Your task to perform on an android device: Open Chrome and go to the settings page Image 0: 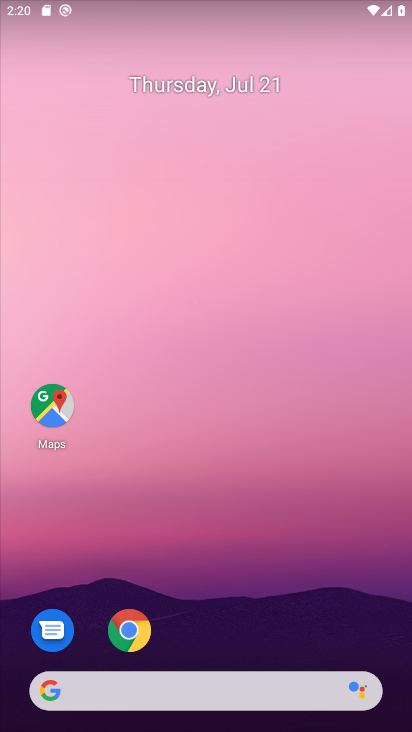
Step 0: click (138, 630)
Your task to perform on an android device: Open Chrome and go to the settings page Image 1: 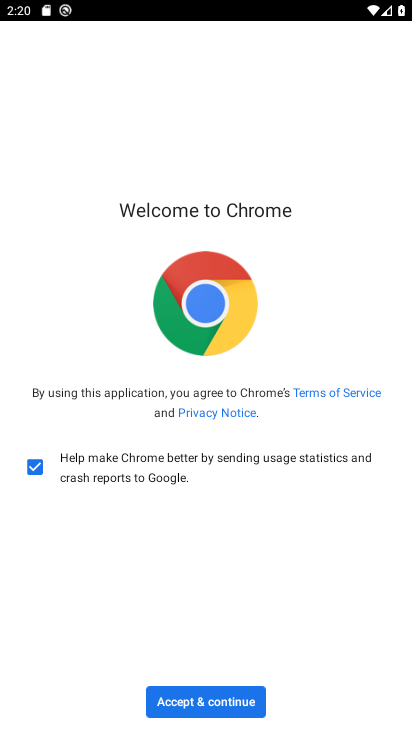
Step 1: click (187, 713)
Your task to perform on an android device: Open Chrome and go to the settings page Image 2: 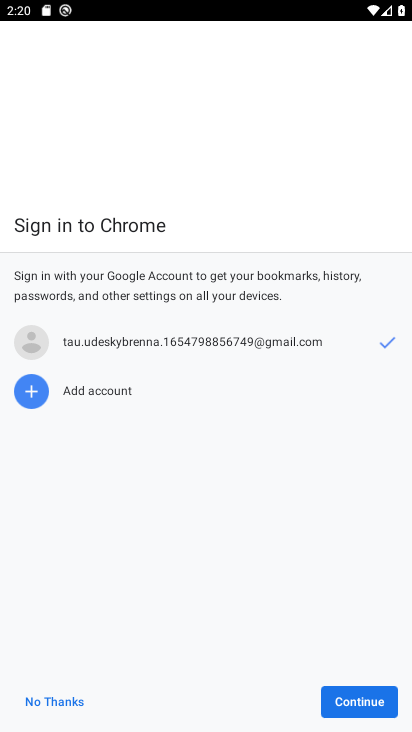
Step 2: click (355, 696)
Your task to perform on an android device: Open Chrome and go to the settings page Image 3: 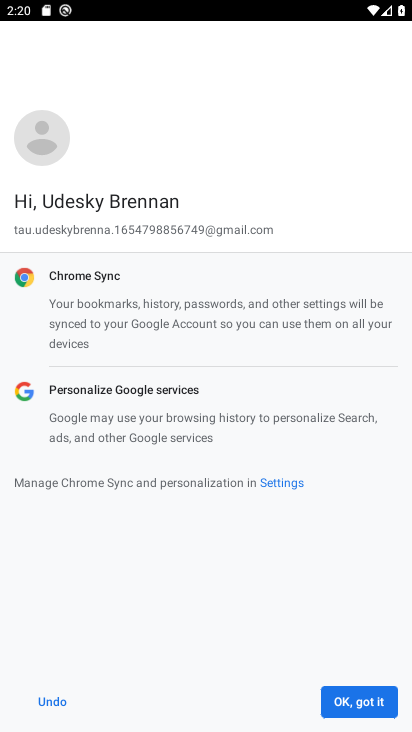
Step 3: click (355, 696)
Your task to perform on an android device: Open Chrome and go to the settings page Image 4: 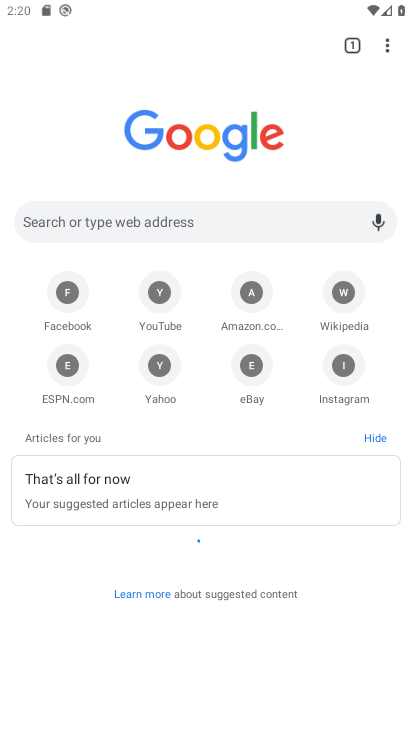
Step 4: click (390, 40)
Your task to perform on an android device: Open Chrome and go to the settings page Image 5: 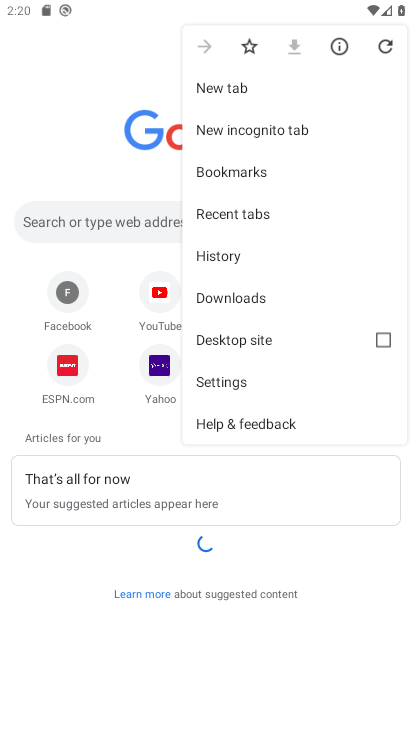
Step 5: click (216, 387)
Your task to perform on an android device: Open Chrome and go to the settings page Image 6: 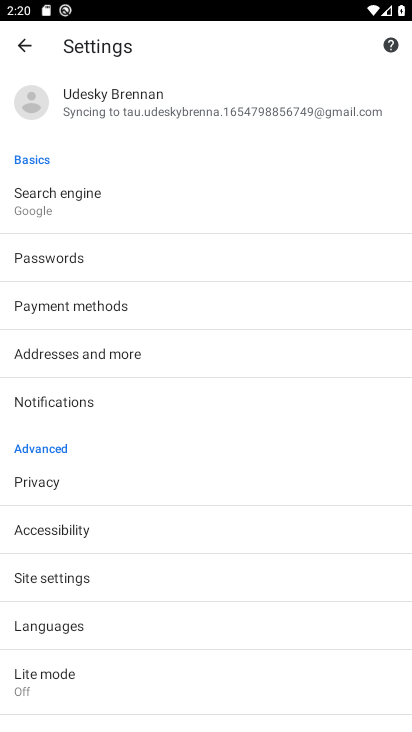
Step 6: task complete